Your task to perform on an android device: Show me recent news Image 0: 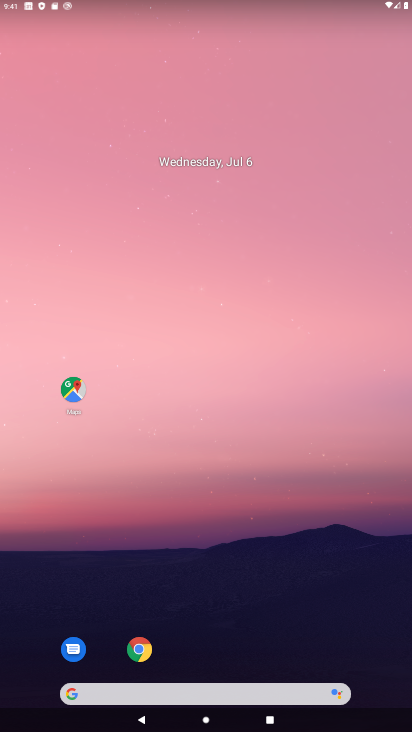
Step 0: click (203, 80)
Your task to perform on an android device: Show me recent news Image 1: 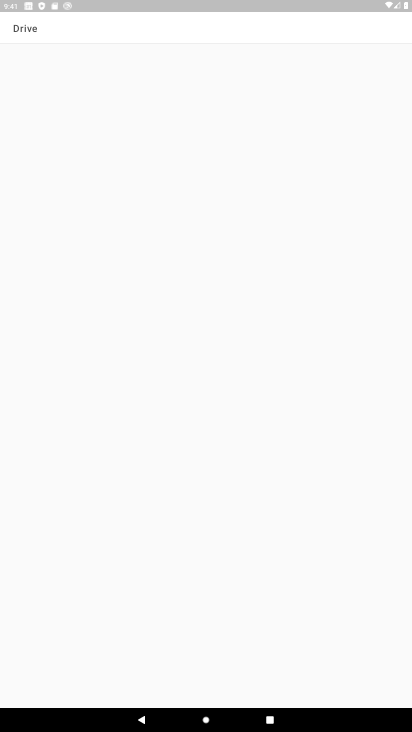
Step 1: task complete